Your task to perform on an android device: Do I have any events this weekend? Image 0: 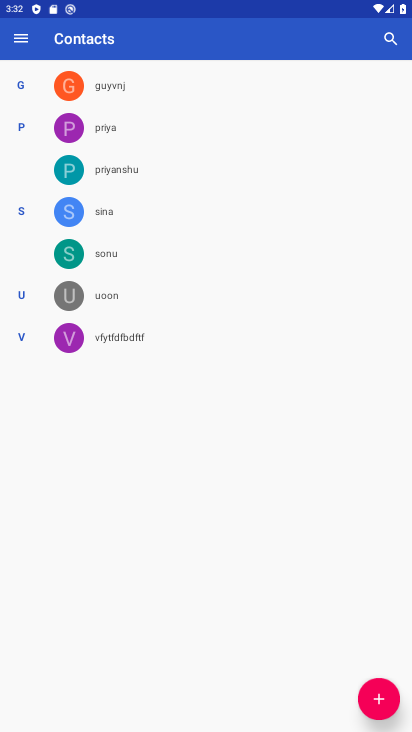
Step 0: press back button
Your task to perform on an android device: Do I have any events this weekend? Image 1: 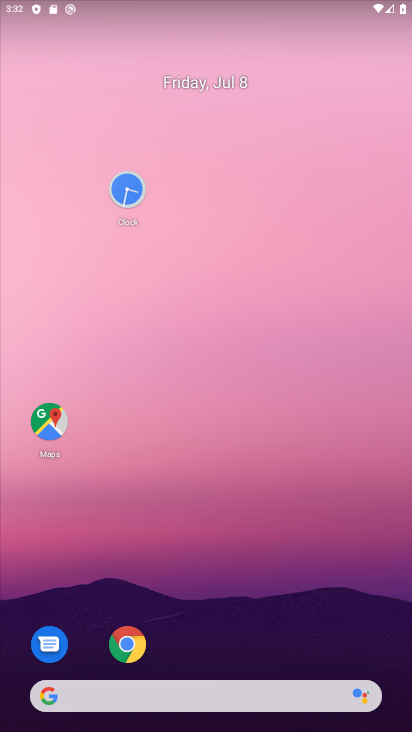
Step 1: drag from (184, 612) to (209, 73)
Your task to perform on an android device: Do I have any events this weekend? Image 2: 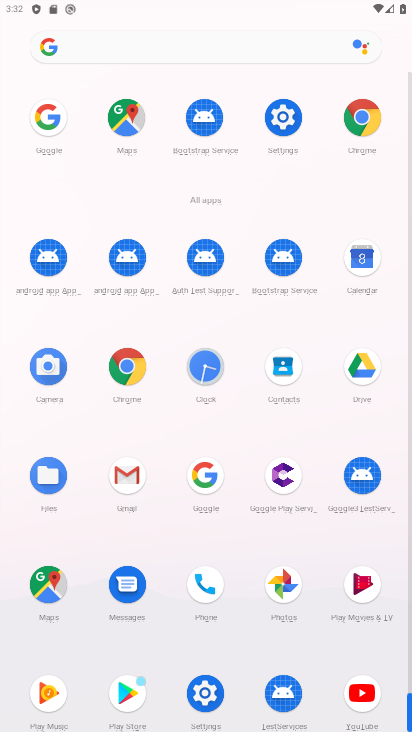
Step 2: drag from (182, 113) to (127, 150)
Your task to perform on an android device: Do I have any events this weekend? Image 3: 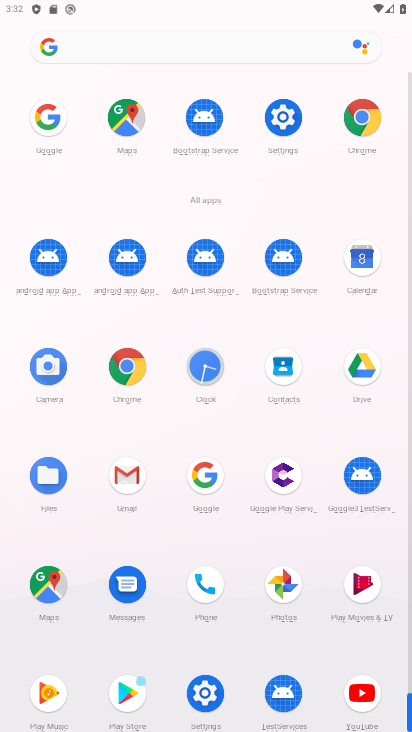
Step 3: click (353, 256)
Your task to perform on an android device: Do I have any events this weekend? Image 4: 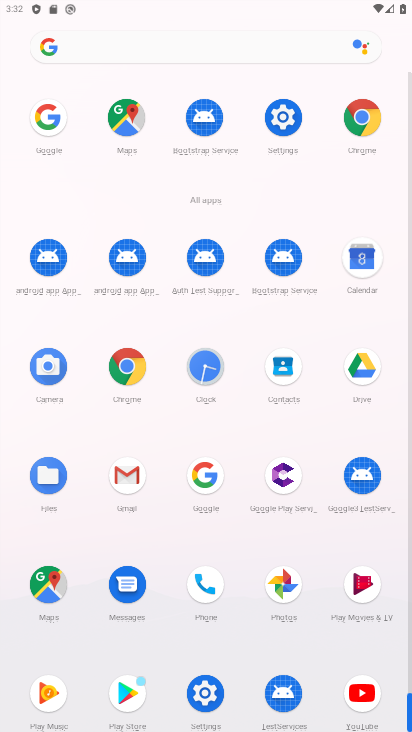
Step 4: click (352, 250)
Your task to perform on an android device: Do I have any events this weekend? Image 5: 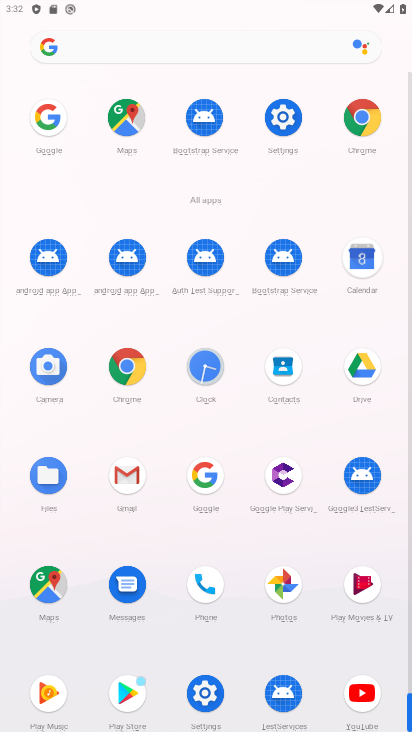
Step 5: click (361, 249)
Your task to perform on an android device: Do I have any events this weekend? Image 6: 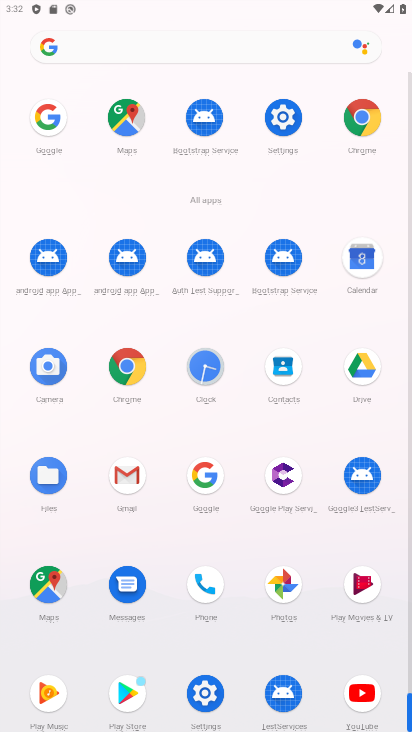
Step 6: click (363, 249)
Your task to perform on an android device: Do I have any events this weekend? Image 7: 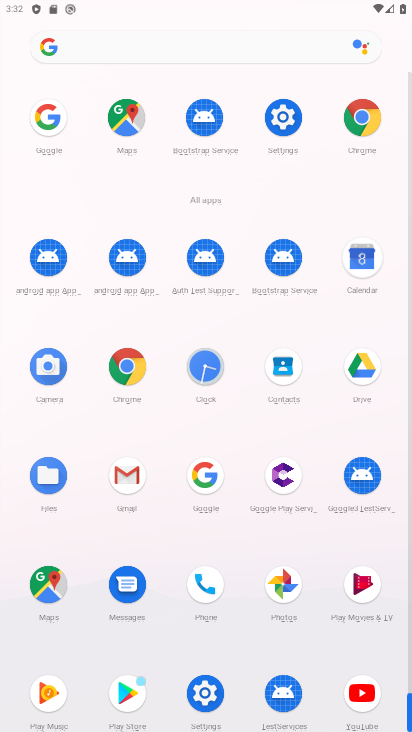
Step 7: click (366, 249)
Your task to perform on an android device: Do I have any events this weekend? Image 8: 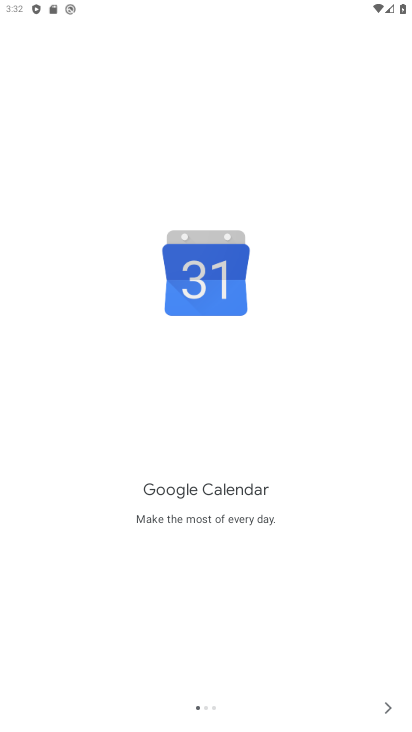
Step 8: click (384, 708)
Your task to perform on an android device: Do I have any events this weekend? Image 9: 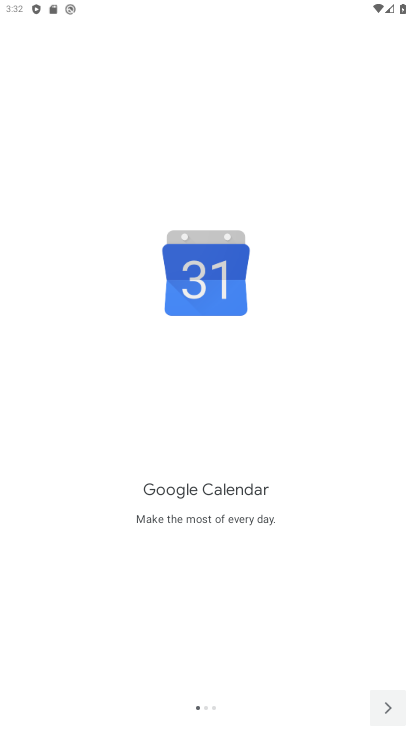
Step 9: click (384, 708)
Your task to perform on an android device: Do I have any events this weekend? Image 10: 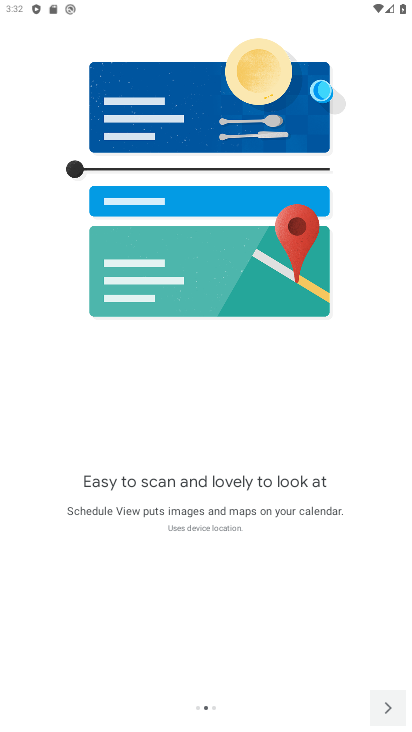
Step 10: click (384, 708)
Your task to perform on an android device: Do I have any events this weekend? Image 11: 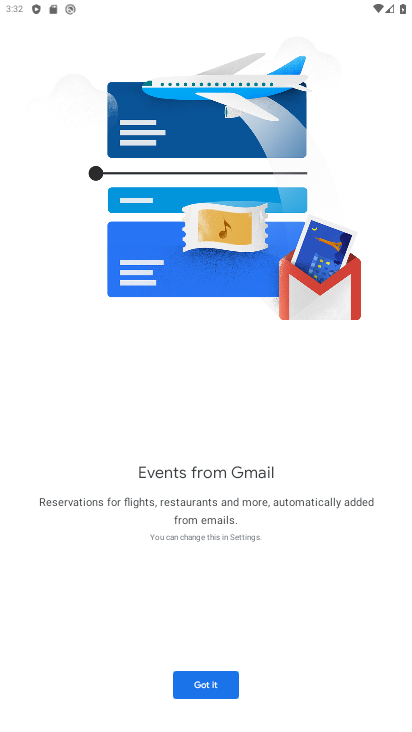
Step 11: click (389, 702)
Your task to perform on an android device: Do I have any events this weekend? Image 12: 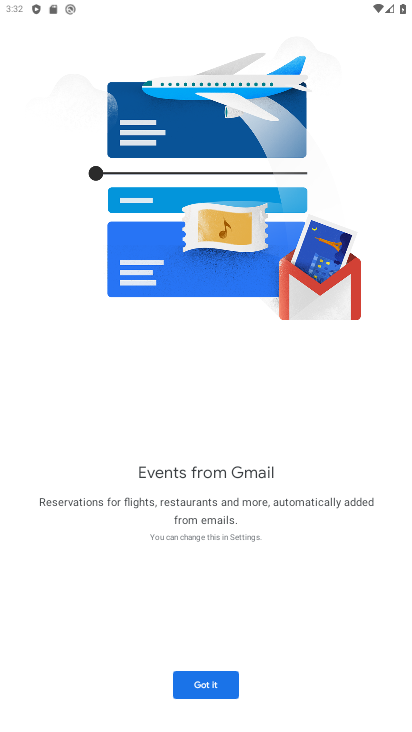
Step 12: click (389, 702)
Your task to perform on an android device: Do I have any events this weekend? Image 13: 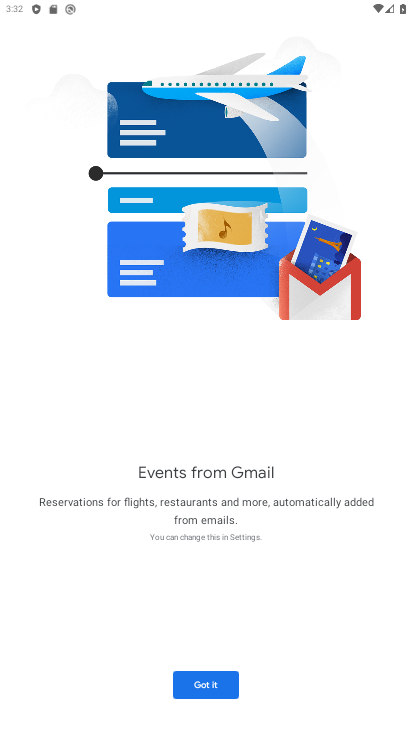
Step 13: click (389, 702)
Your task to perform on an android device: Do I have any events this weekend? Image 14: 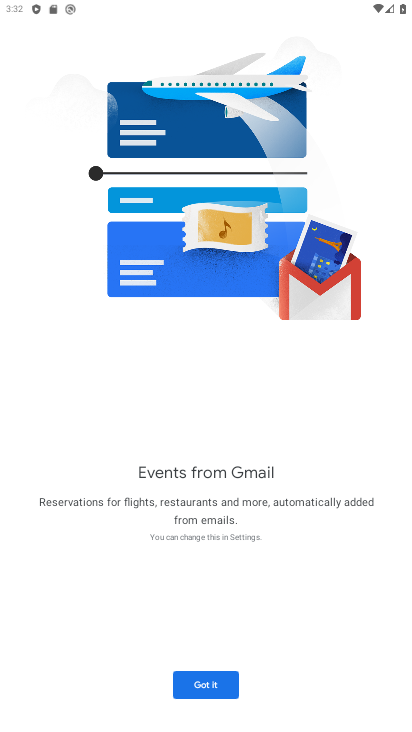
Step 14: click (389, 702)
Your task to perform on an android device: Do I have any events this weekend? Image 15: 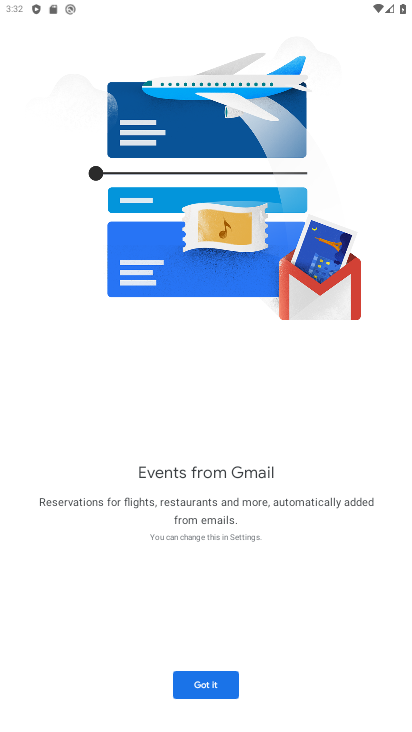
Step 15: click (388, 703)
Your task to perform on an android device: Do I have any events this weekend? Image 16: 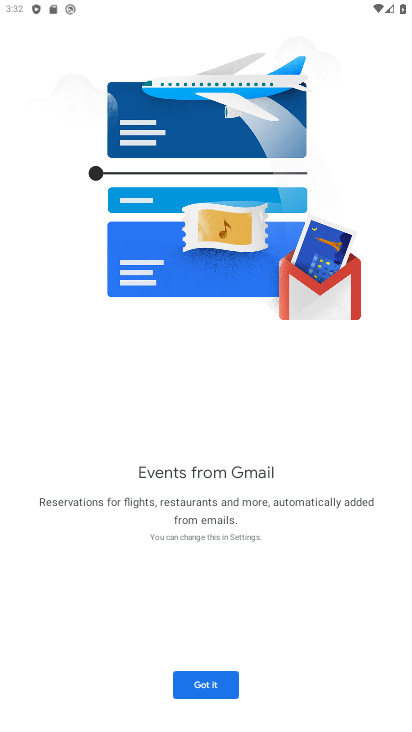
Step 16: click (202, 682)
Your task to perform on an android device: Do I have any events this weekend? Image 17: 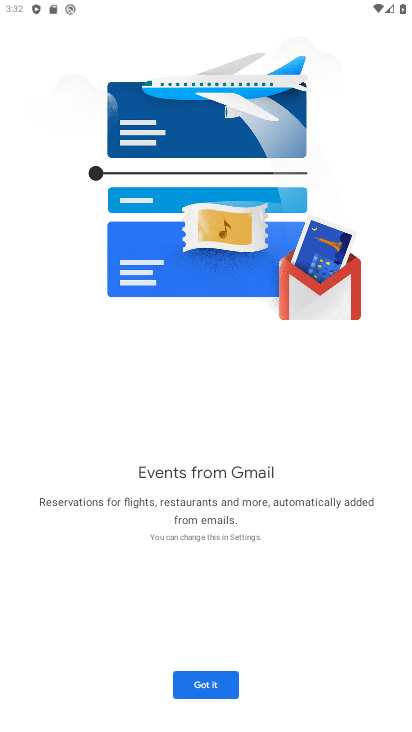
Step 17: click (206, 682)
Your task to perform on an android device: Do I have any events this weekend? Image 18: 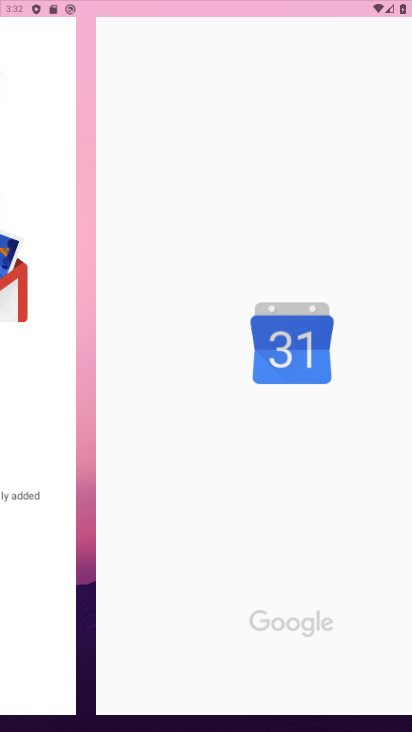
Step 18: click (202, 683)
Your task to perform on an android device: Do I have any events this weekend? Image 19: 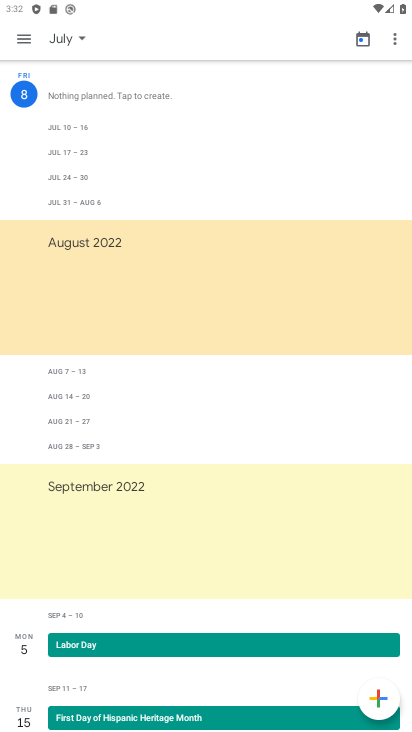
Step 19: drag from (215, 582) to (139, 81)
Your task to perform on an android device: Do I have any events this weekend? Image 20: 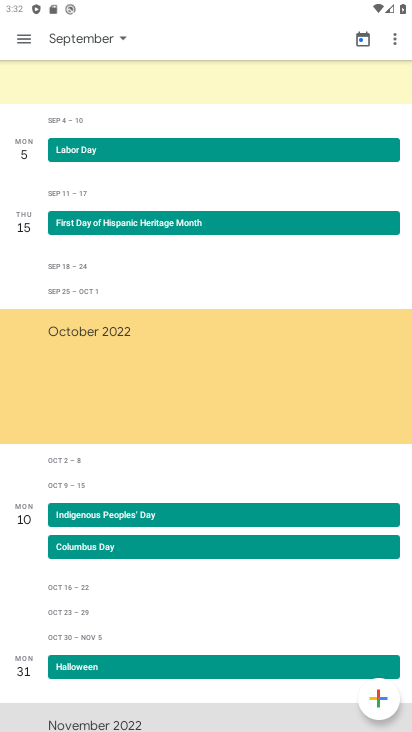
Step 20: click (240, 110)
Your task to perform on an android device: Do I have any events this weekend? Image 21: 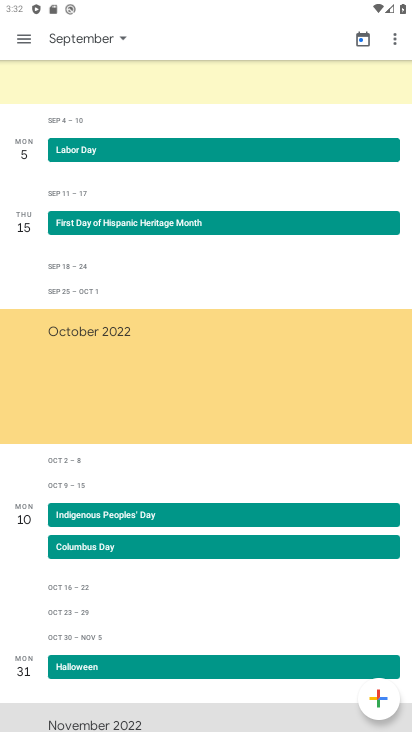
Step 21: drag from (83, 203) to (198, 585)
Your task to perform on an android device: Do I have any events this weekend? Image 22: 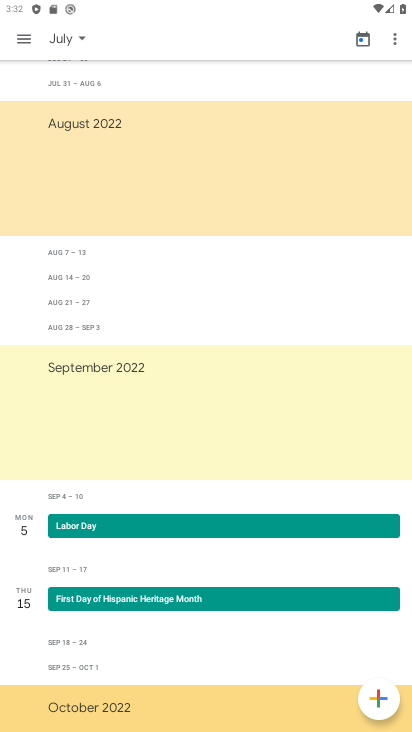
Step 22: drag from (107, 296) to (164, 584)
Your task to perform on an android device: Do I have any events this weekend? Image 23: 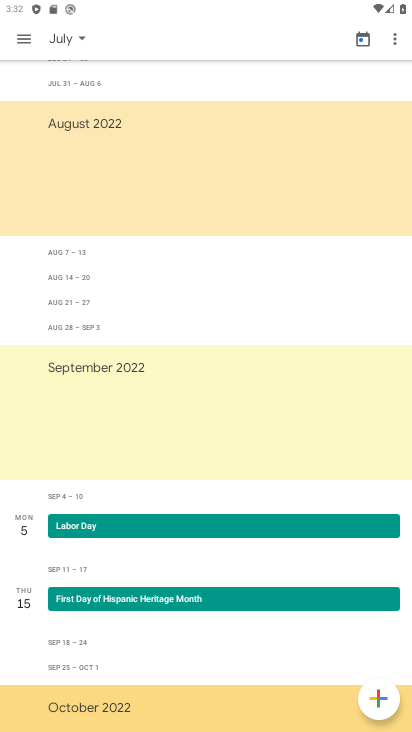
Step 23: drag from (190, 175) to (191, 577)
Your task to perform on an android device: Do I have any events this weekend? Image 24: 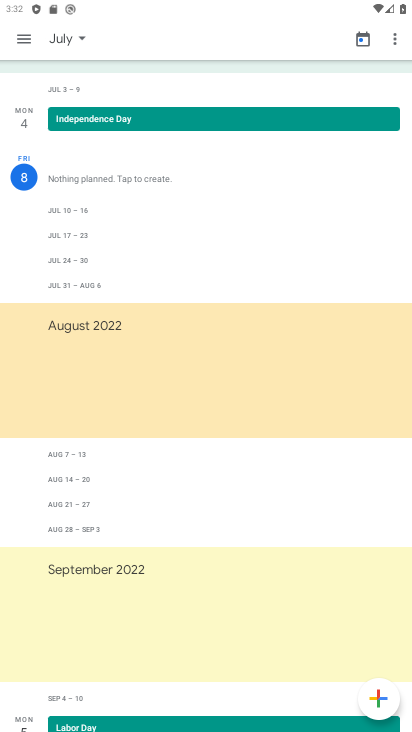
Step 24: drag from (129, 347) to (168, 626)
Your task to perform on an android device: Do I have any events this weekend? Image 25: 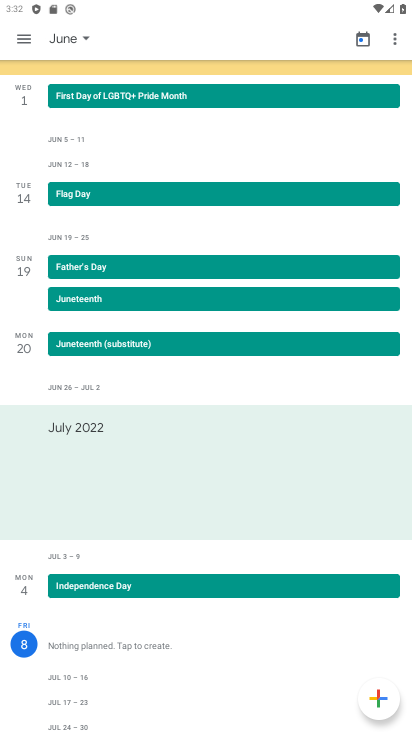
Step 25: drag from (142, 550) to (141, 285)
Your task to perform on an android device: Do I have any events this weekend? Image 26: 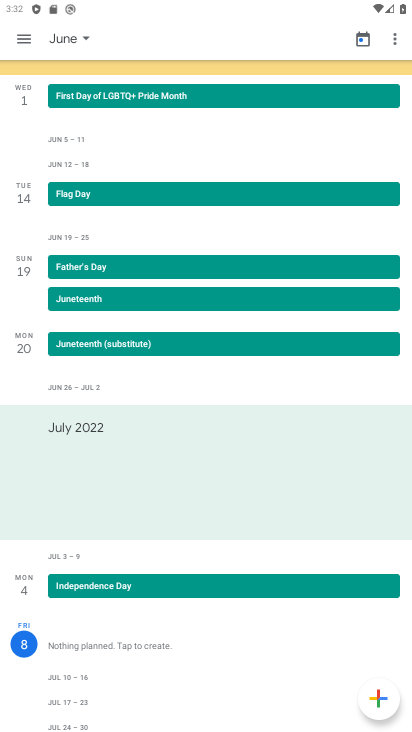
Step 26: click (203, 517)
Your task to perform on an android device: Do I have any events this weekend? Image 27: 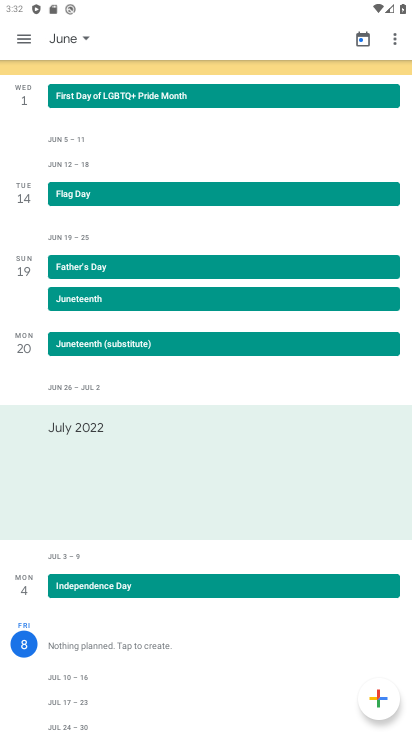
Step 27: task complete